Your task to perform on an android device: visit the assistant section in the google photos Image 0: 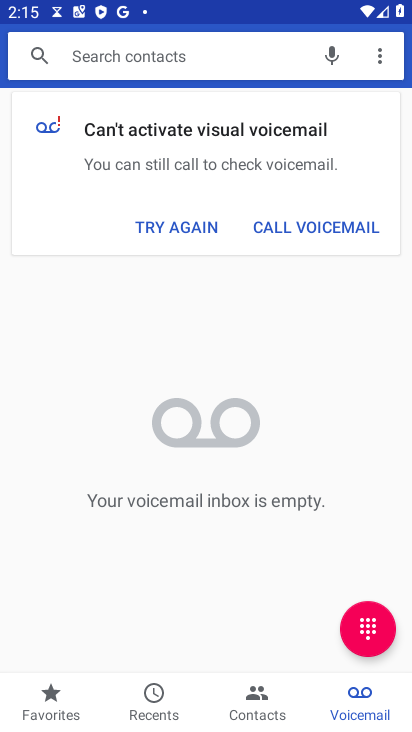
Step 0: press home button
Your task to perform on an android device: visit the assistant section in the google photos Image 1: 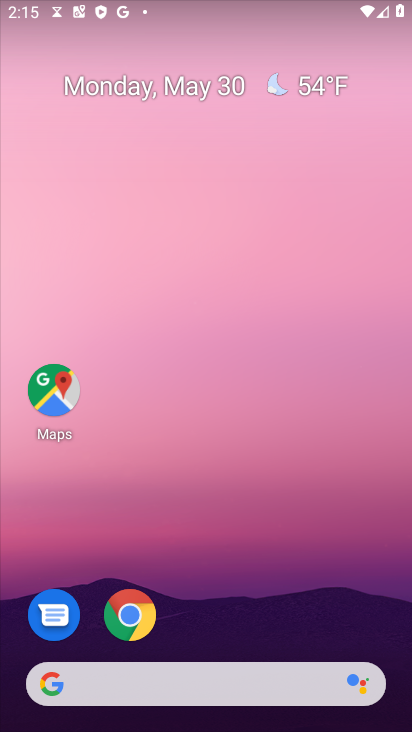
Step 1: drag from (332, 591) to (287, 43)
Your task to perform on an android device: visit the assistant section in the google photos Image 2: 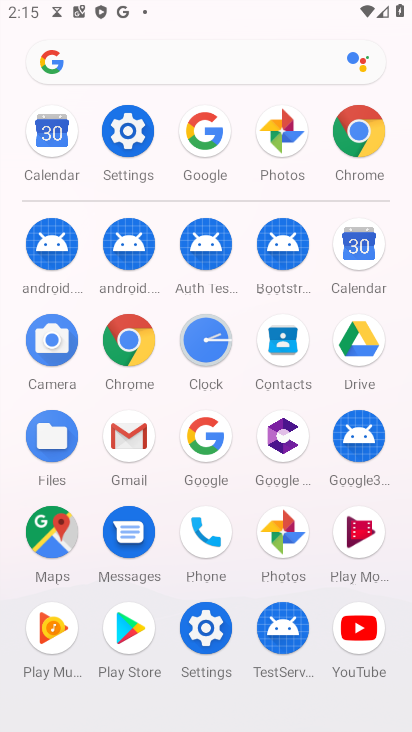
Step 2: click (278, 123)
Your task to perform on an android device: visit the assistant section in the google photos Image 3: 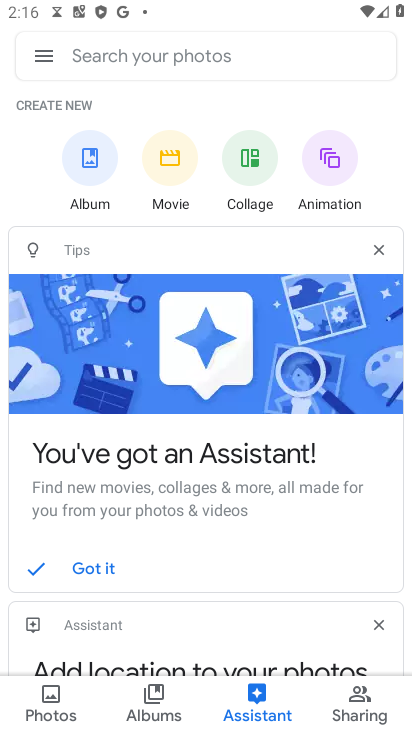
Step 3: task complete